Your task to perform on an android device: turn on javascript in the chrome app Image 0: 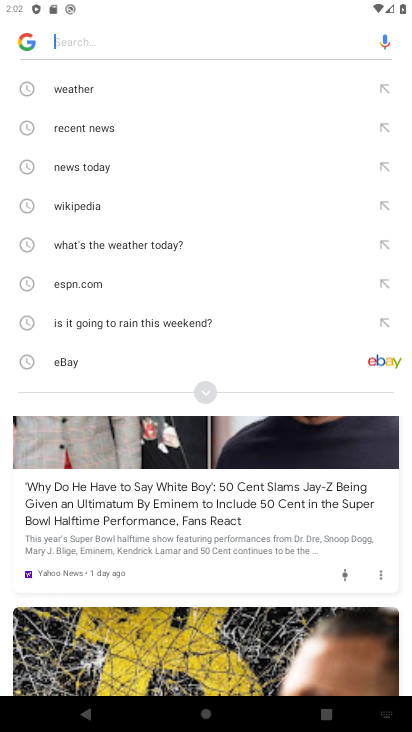
Step 0: click (403, 523)
Your task to perform on an android device: turn on javascript in the chrome app Image 1: 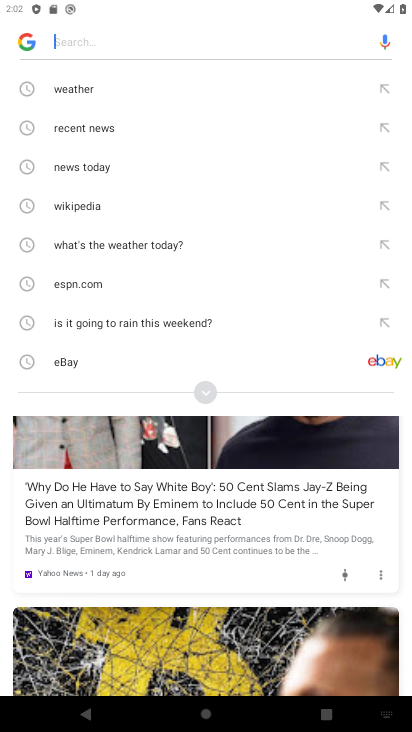
Step 1: press home button
Your task to perform on an android device: turn on javascript in the chrome app Image 2: 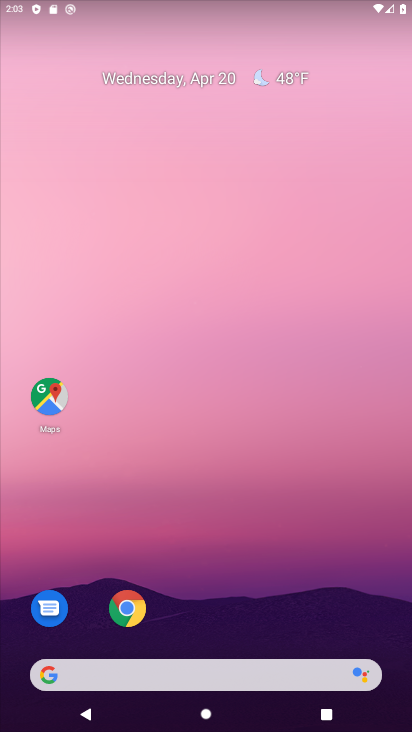
Step 2: click (129, 622)
Your task to perform on an android device: turn on javascript in the chrome app Image 3: 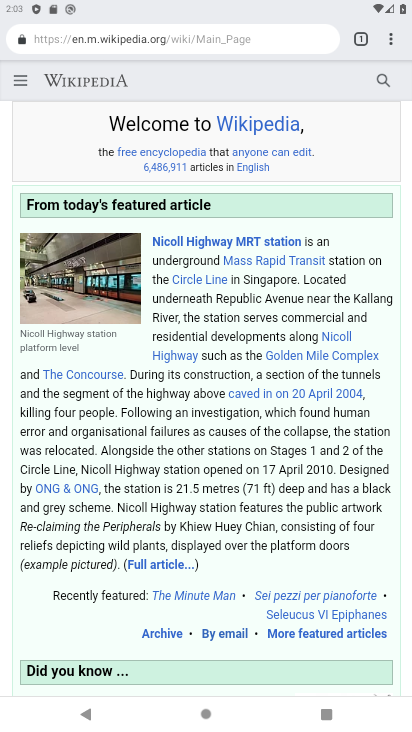
Step 3: click (398, 41)
Your task to perform on an android device: turn on javascript in the chrome app Image 4: 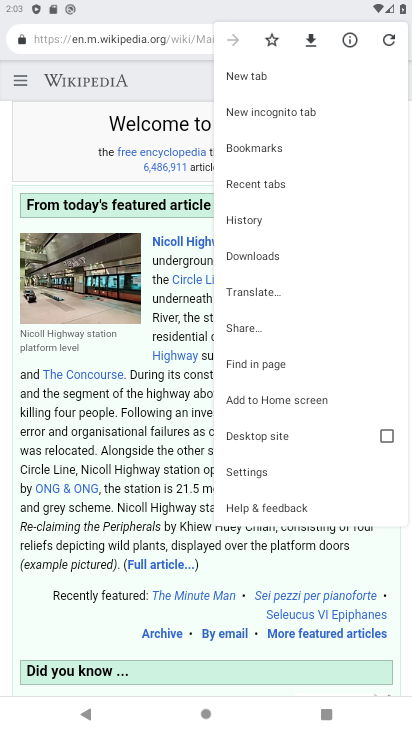
Step 4: click (275, 479)
Your task to perform on an android device: turn on javascript in the chrome app Image 5: 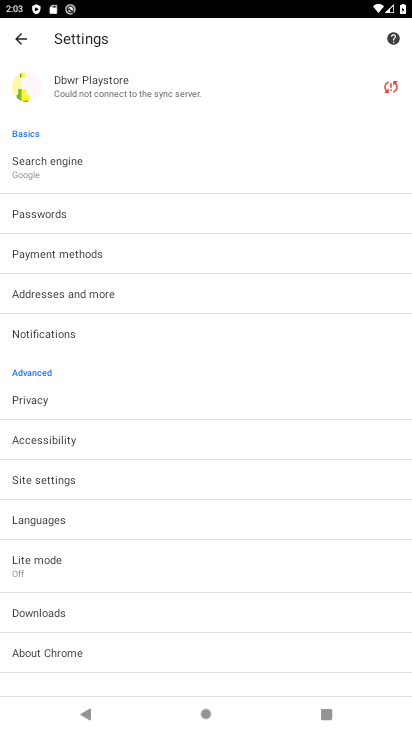
Step 5: click (168, 484)
Your task to perform on an android device: turn on javascript in the chrome app Image 6: 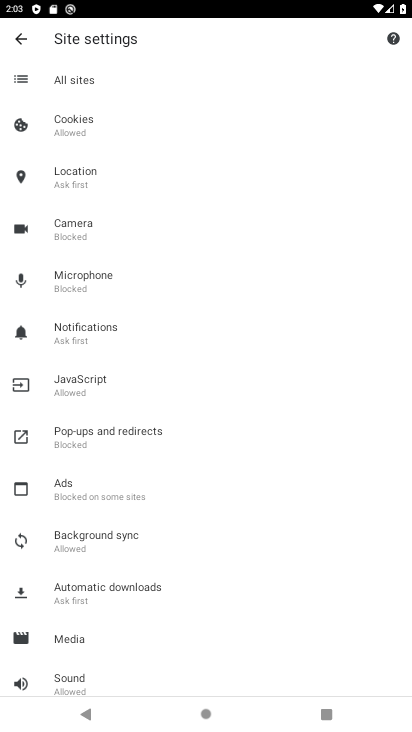
Step 6: click (125, 377)
Your task to perform on an android device: turn on javascript in the chrome app Image 7: 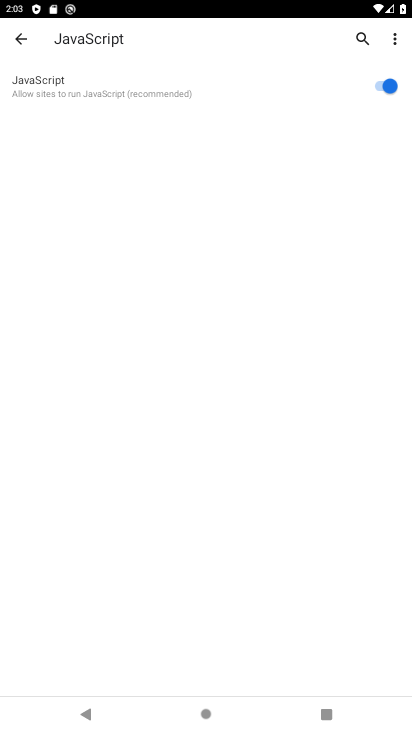
Step 7: task complete